Your task to perform on an android device: change timer sound Image 0: 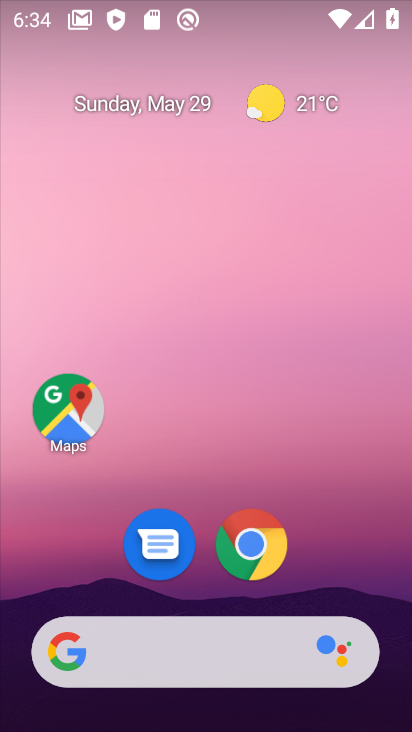
Step 0: drag from (325, 493) to (187, 14)
Your task to perform on an android device: change timer sound Image 1: 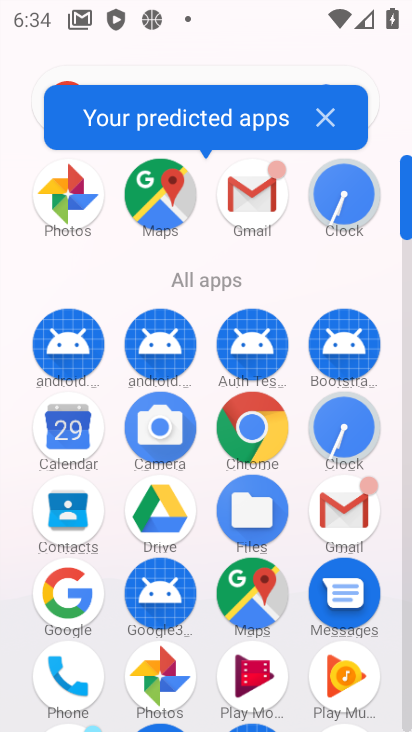
Step 1: click (346, 419)
Your task to perform on an android device: change timer sound Image 2: 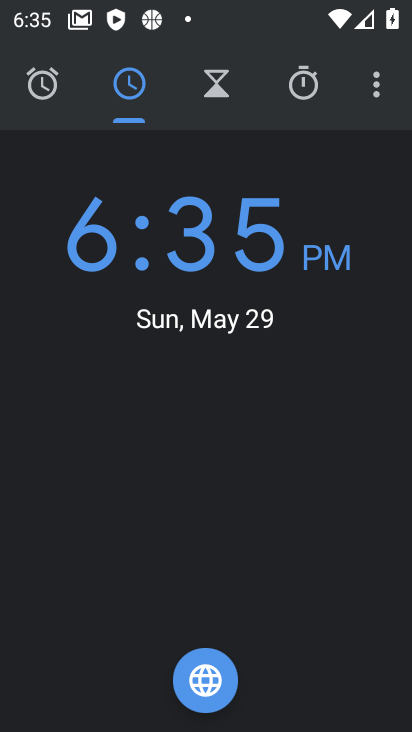
Step 2: click (375, 82)
Your task to perform on an android device: change timer sound Image 3: 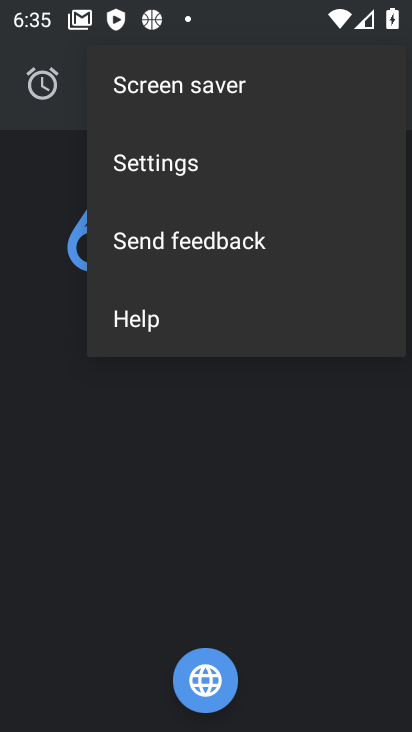
Step 3: click (143, 161)
Your task to perform on an android device: change timer sound Image 4: 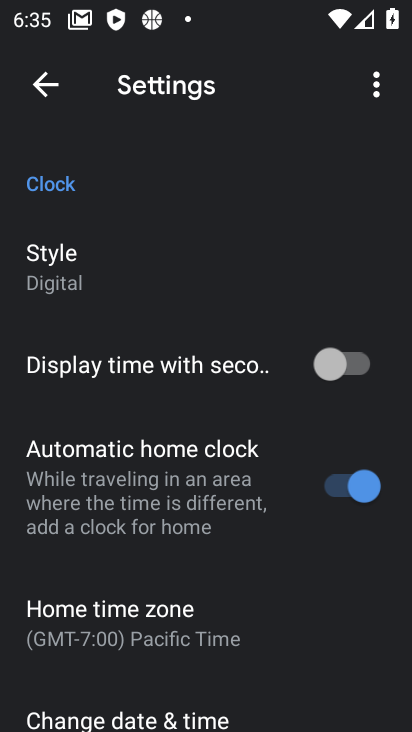
Step 4: drag from (297, 616) to (228, 172)
Your task to perform on an android device: change timer sound Image 5: 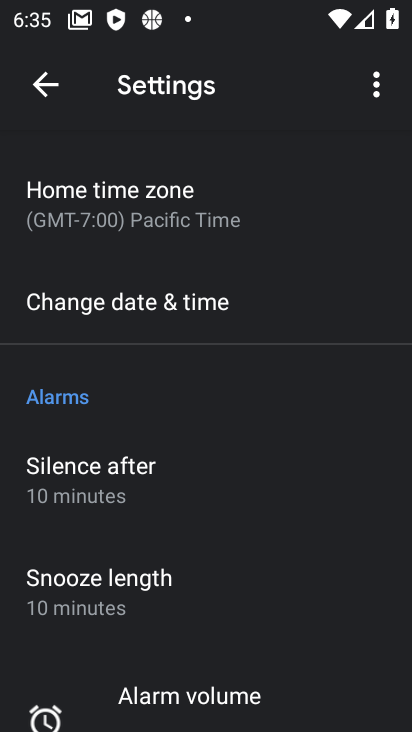
Step 5: drag from (225, 557) to (161, 163)
Your task to perform on an android device: change timer sound Image 6: 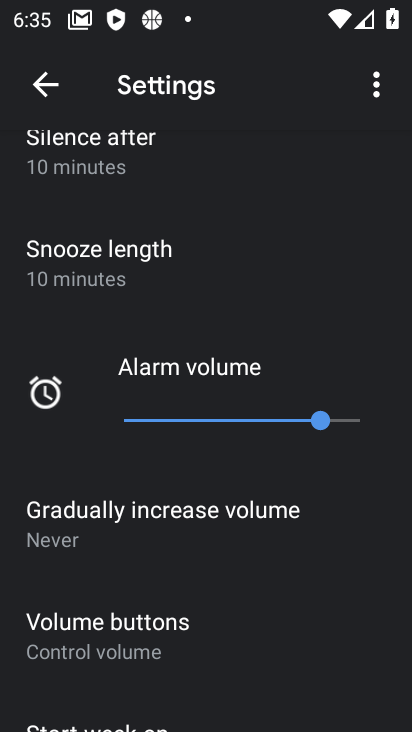
Step 6: drag from (264, 564) to (213, 109)
Your task to perform on an android device: change timer sound Image 7: 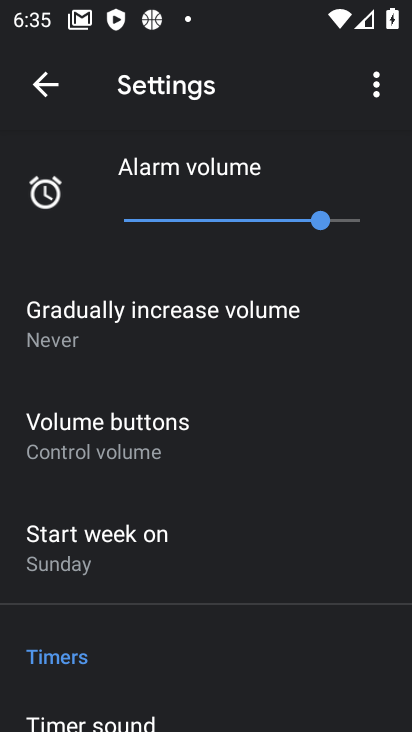
Step 7: drag from (276, 597) to (252, 322)
Your task to perform on an android device: change timer sound Image 8: 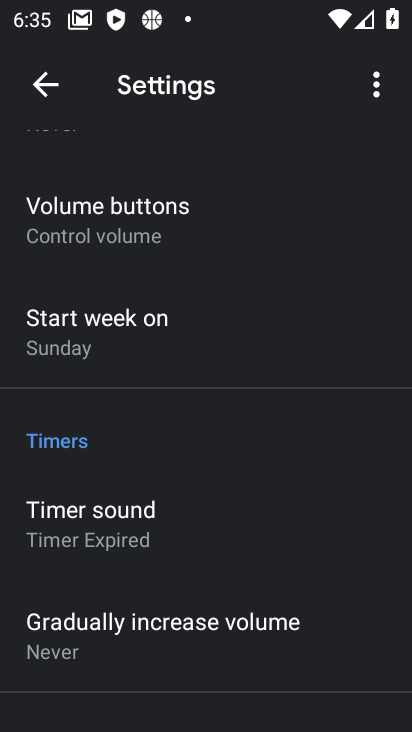
Step 8: click (118, 504)
Your task to perform on an android device: change timer sound Image 9: 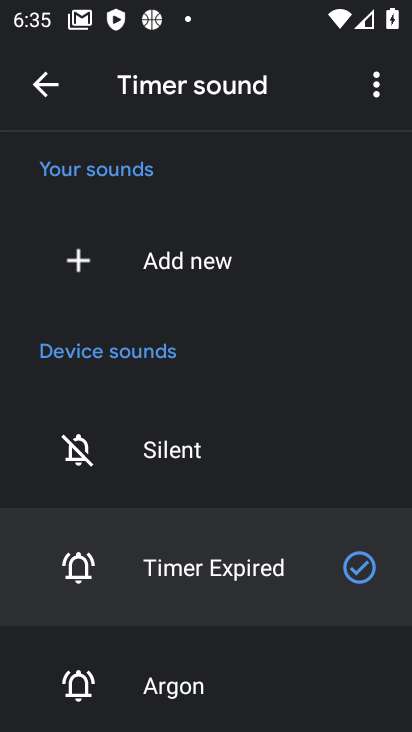
Step 9: click (149, 679)
Your task to perform on an android device: change timer sound Image 10: 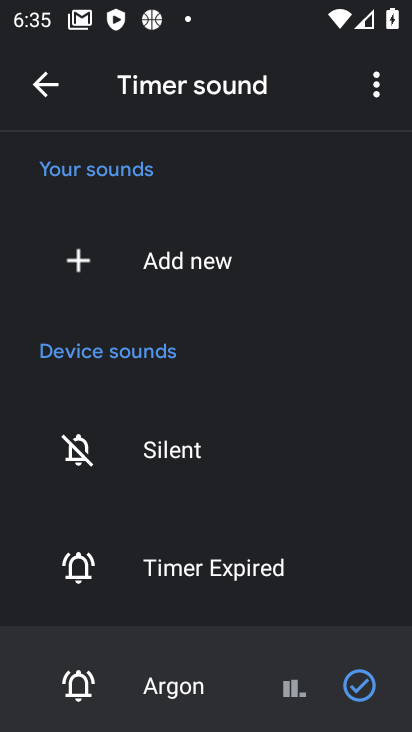
Step 10: task complete